Your task to perform on an android device: How much does a 3 bedroom apartment rent for in Seattle? Image 0: 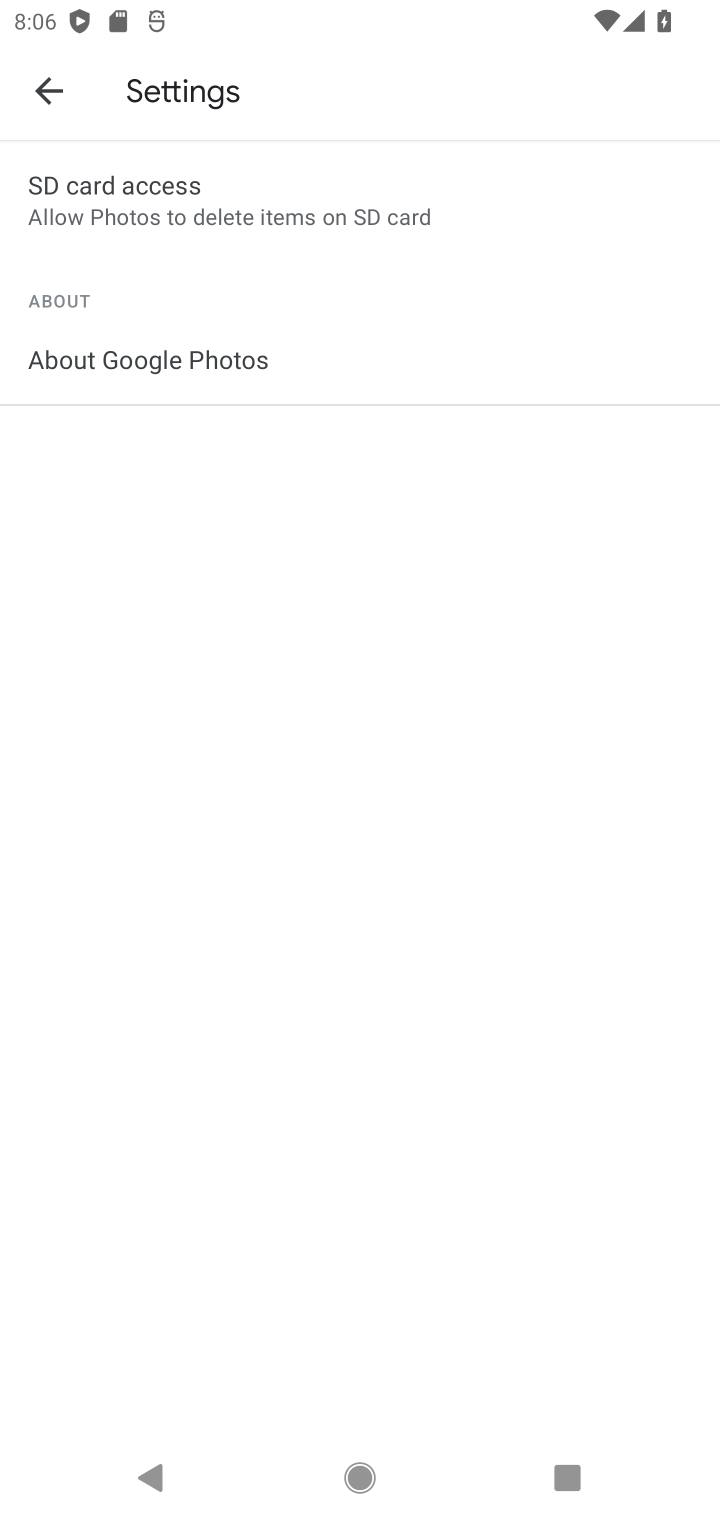
Step 0: press home button
Your task to perform on an android device: How much does a 3 bedroom apartment rent for in Seattle? Image 1: 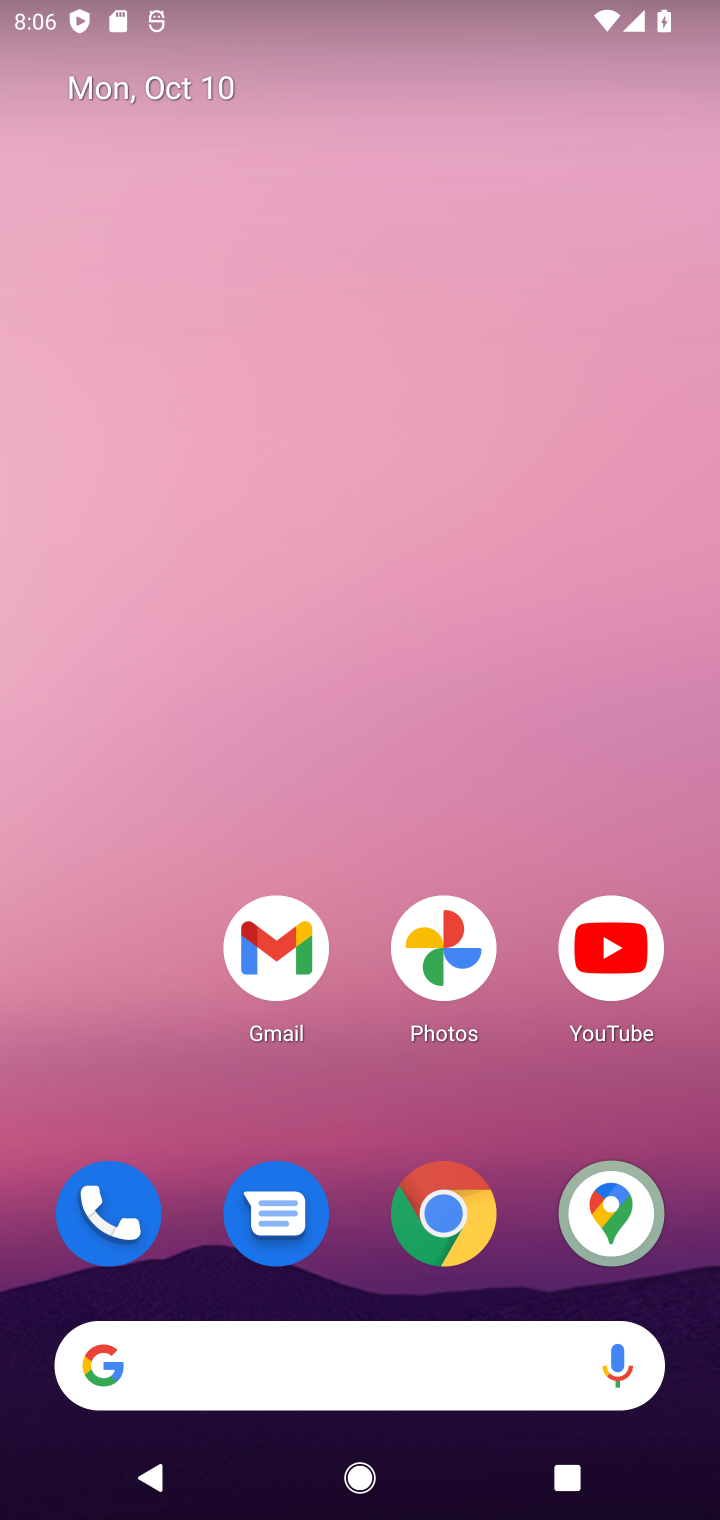
Step 1: click (278, 1356)
Your task to perform on an android device: How much does a 3 bedroom apartment rent for in Seattle? Image 2: 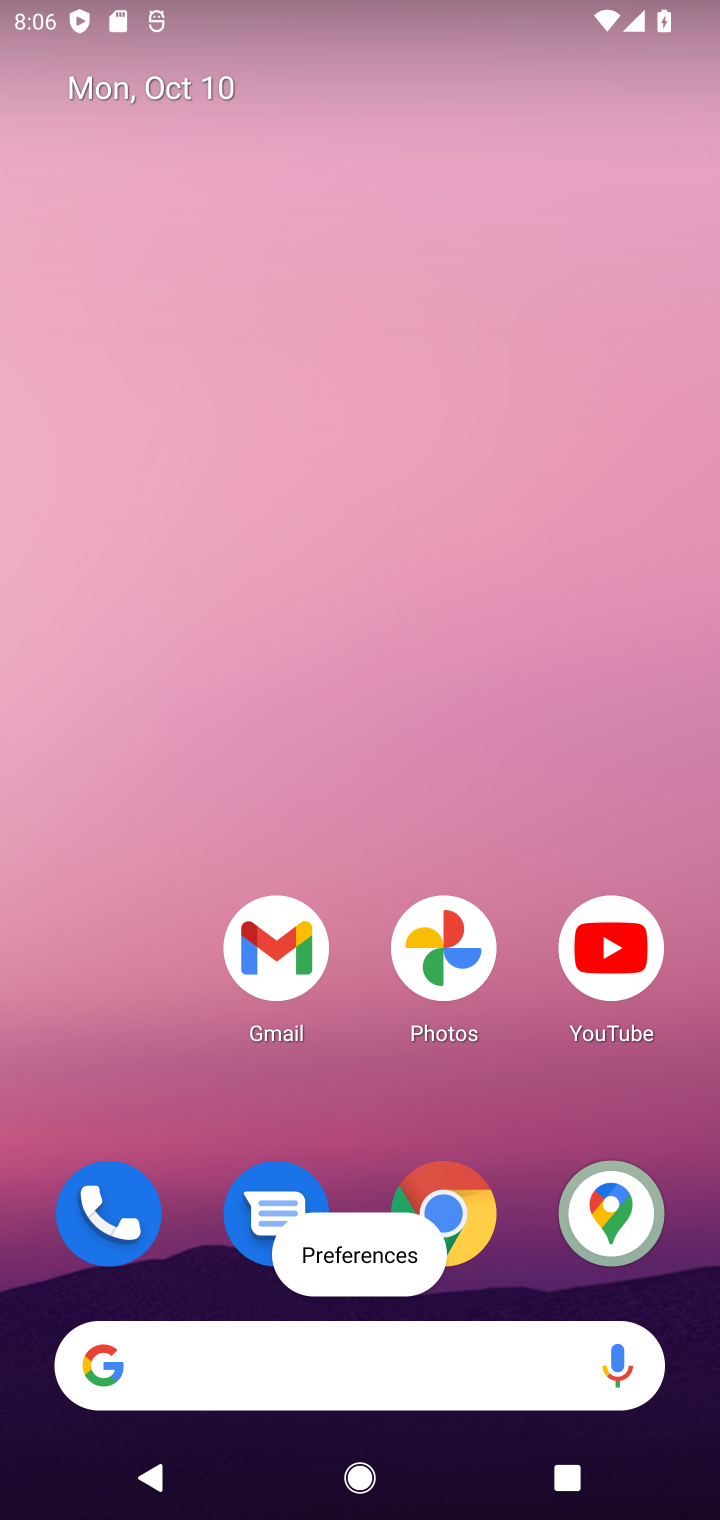
Step 2: click (205, 1363)
Your task to perform on an android device: How much does a 3 bedroom apartment rent for in Seattle? Image 3: 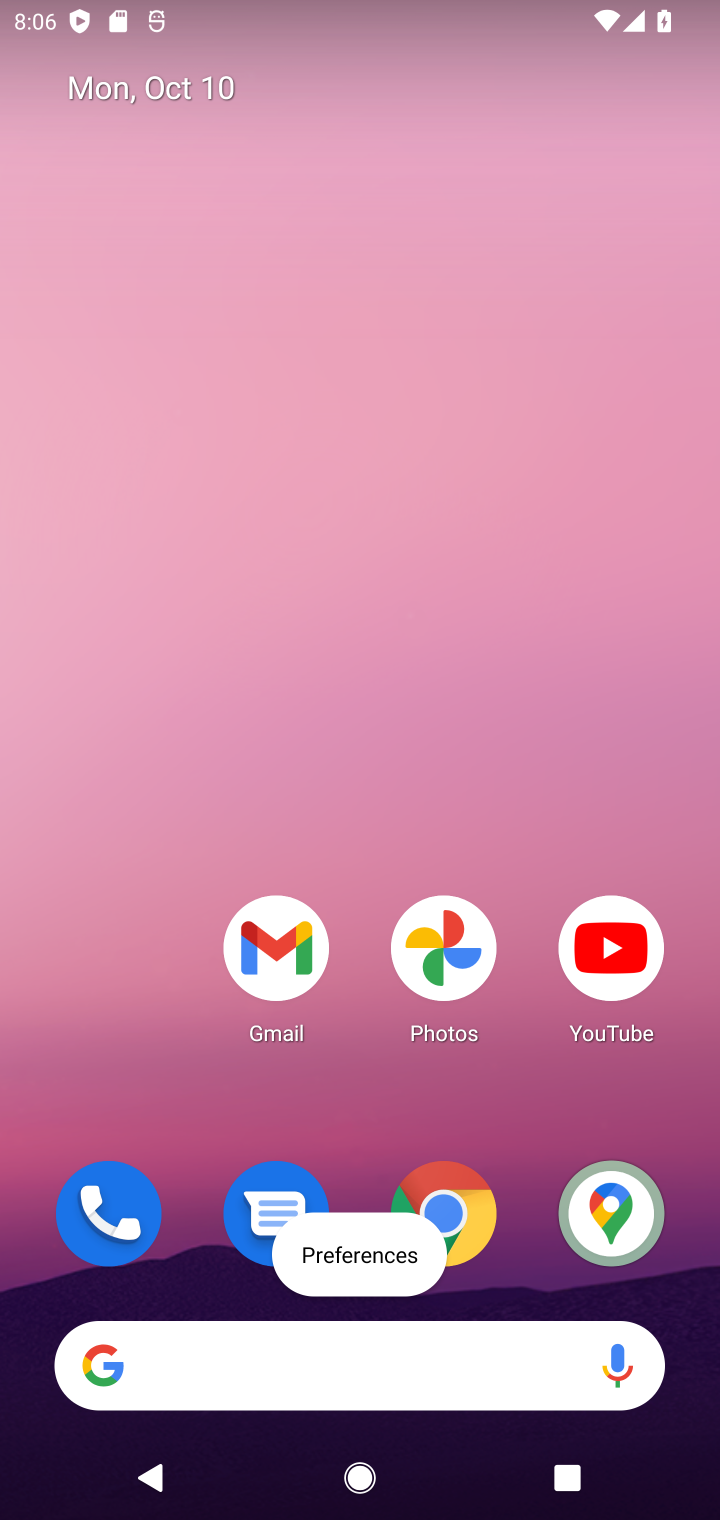
Step 3: click (217, 1353)
Your task to perform on an android device: How much does a 3 bedroom apartment rent for in Seattle? Image 4: 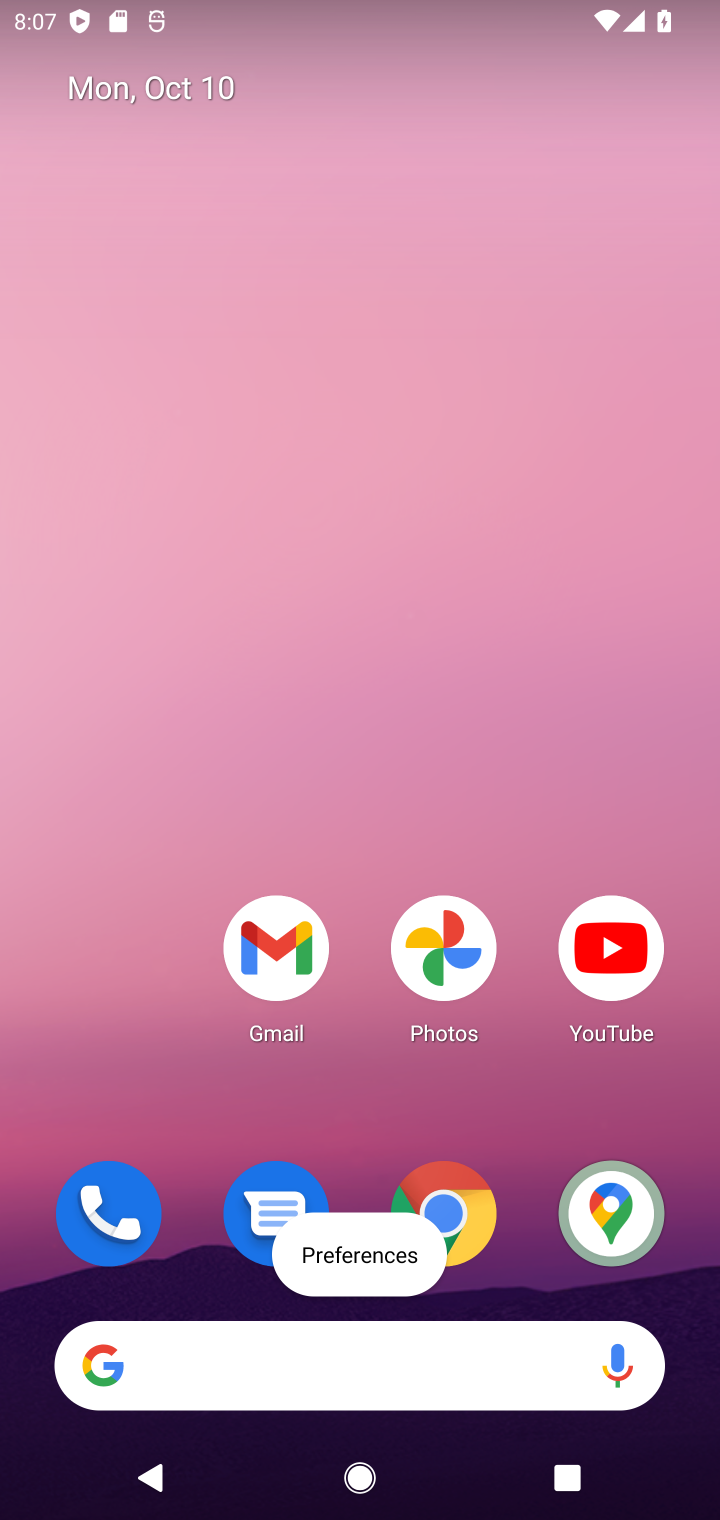
Step 4: click (218, 1369)
Your task to perform on an android device: How much does a 3 bedroom apartment rent for in Seattle? Image 5: 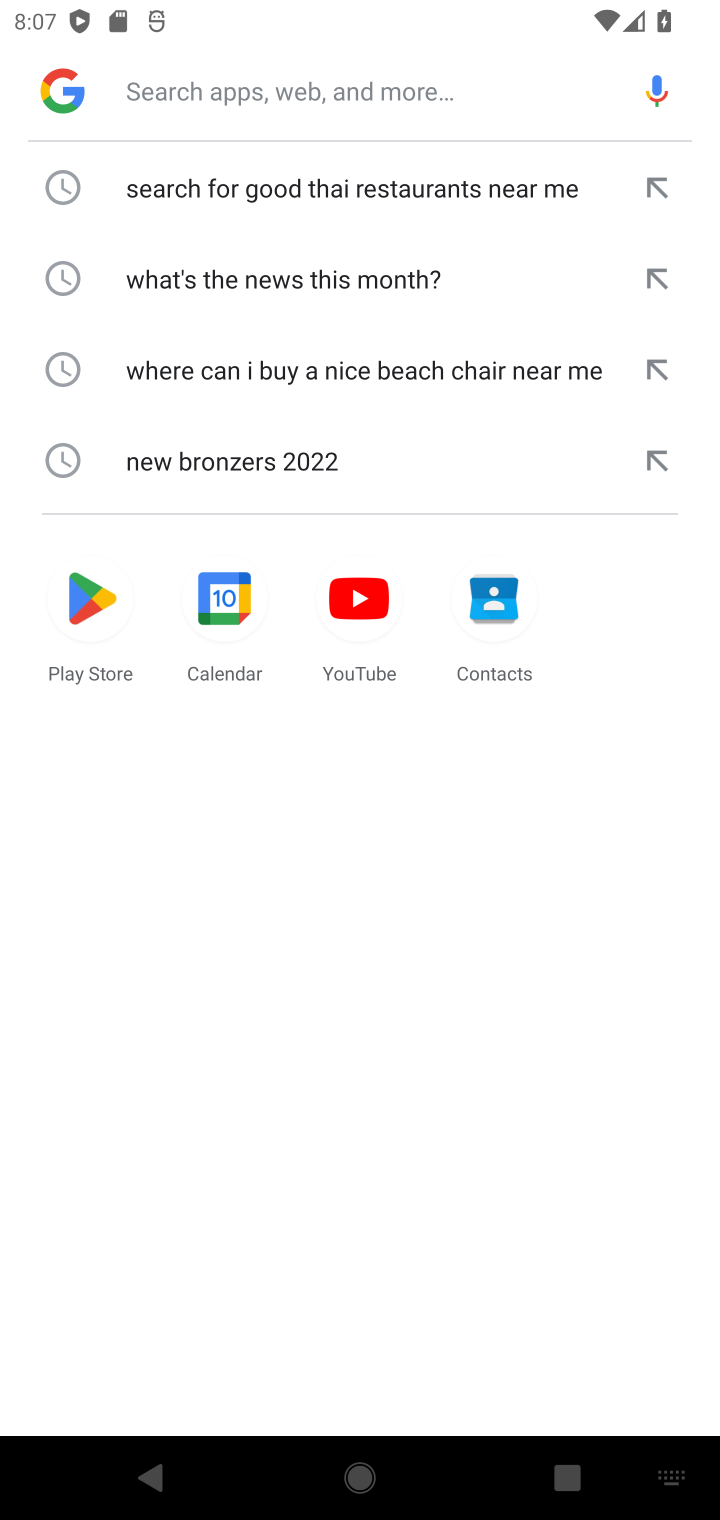
Step 5: click (259, 72)
Your task to perform on an android device: How much does a 3 bedroom apartment rent for in Seattle? Image 6: 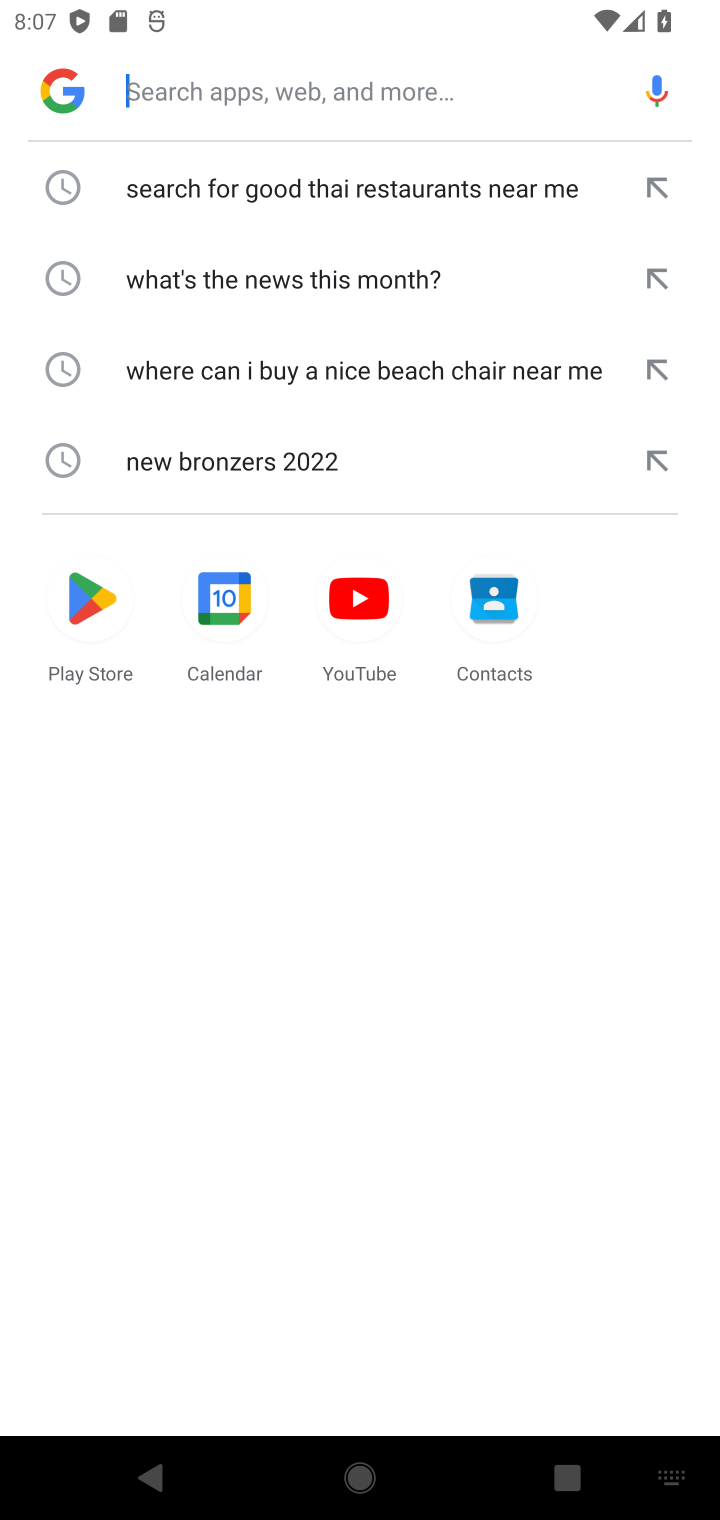
Step 6: type "How much does a 3 bedroom apartment rent for in Seattle?"
Your task to perform on an android device: How much does a 3 bedroom apartment rent for in Seattle? Image 7: 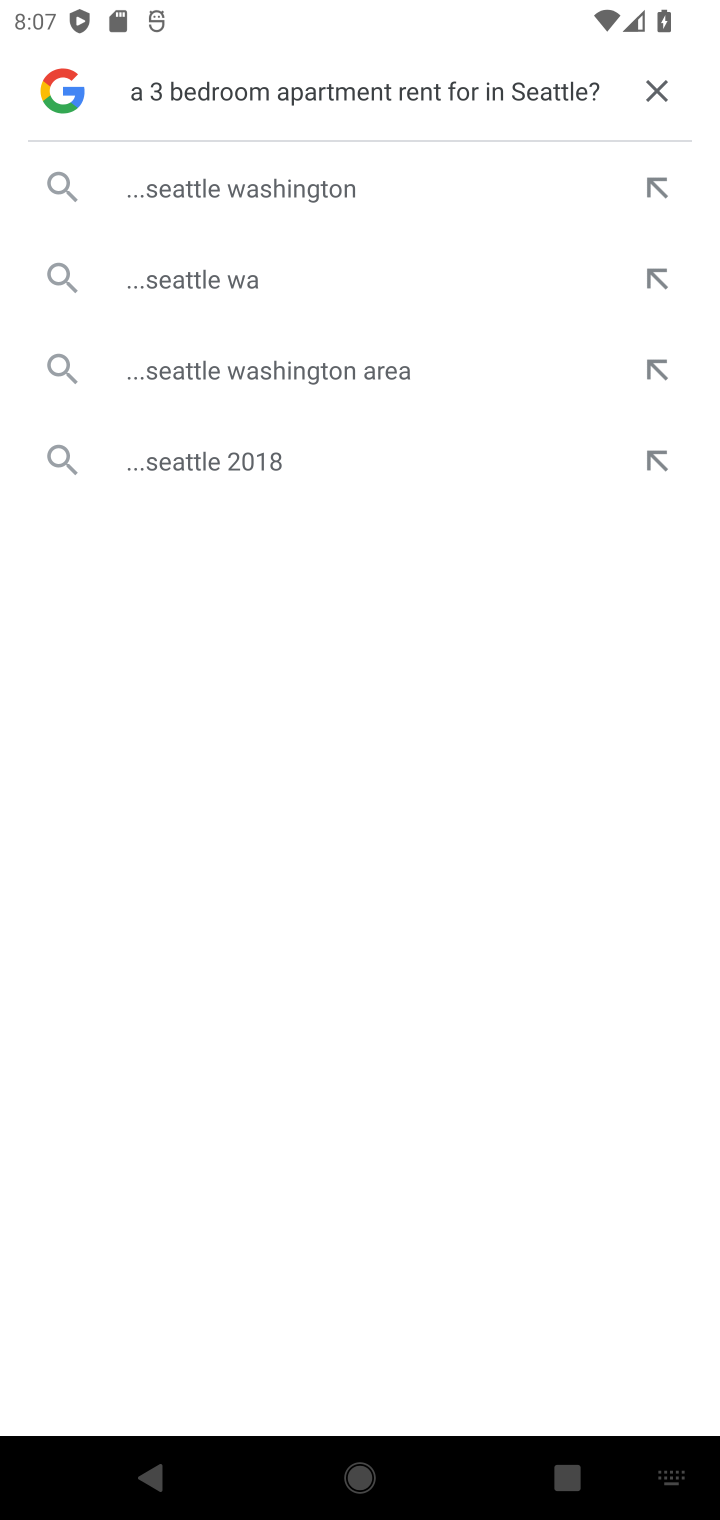
Step 7: click (385, 186)
Your task to perform on an android device: How much does a 3 bedroom apartment rent for in Seattle? Image 8: 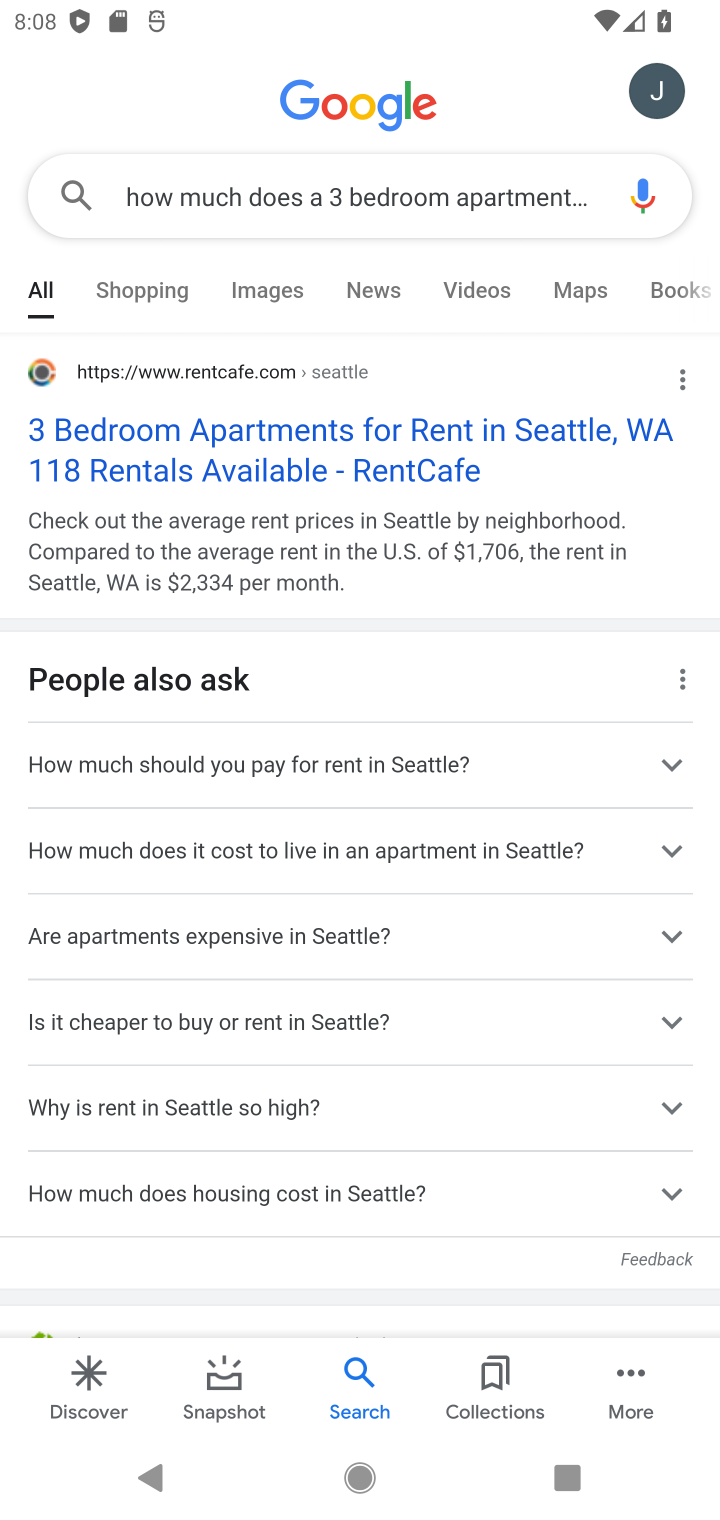
Step 8: click (384, 446)
Your task to perform on an android device: How much does a 3 bedroom apartment rent for in Seattle? Image 9: 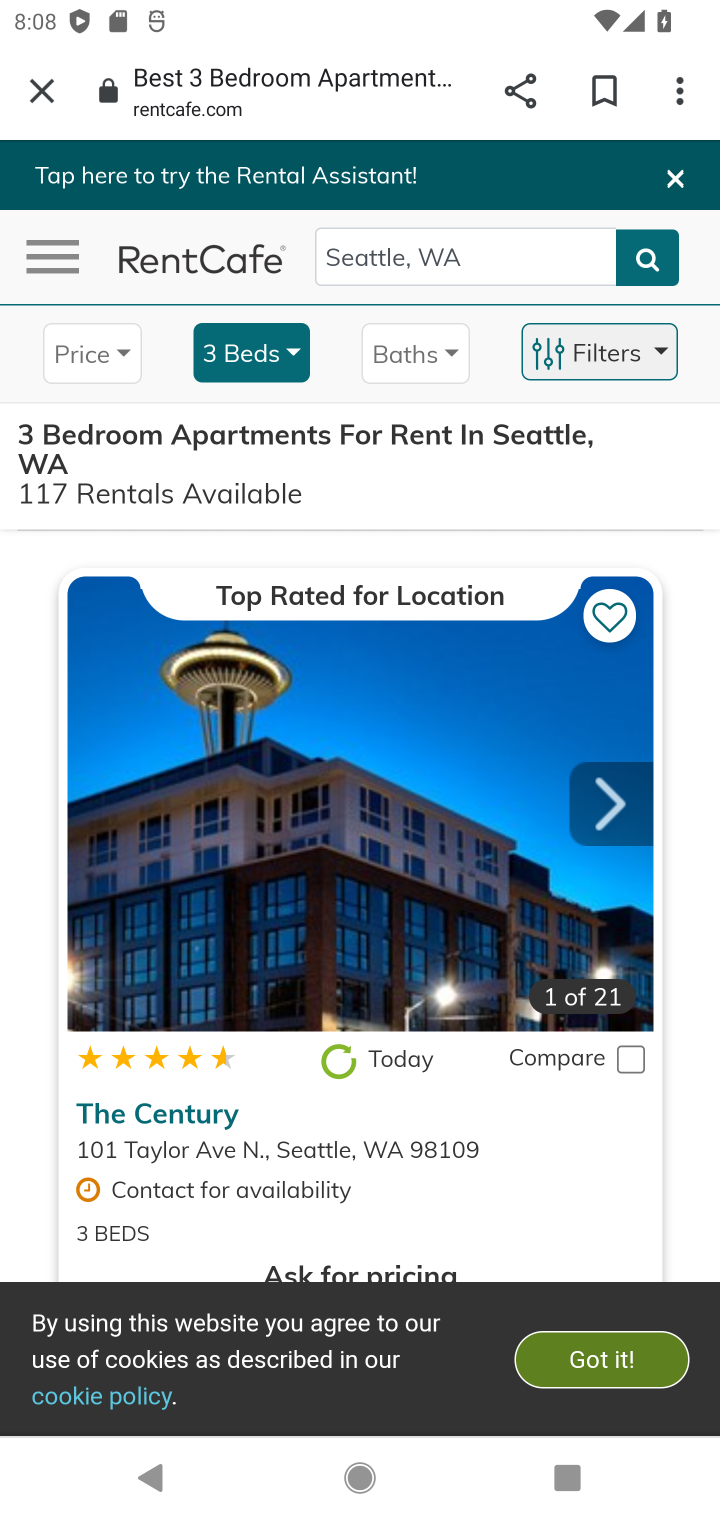
Step 9: task complete